Your task to perform on an android device: show emergency info Image 0: 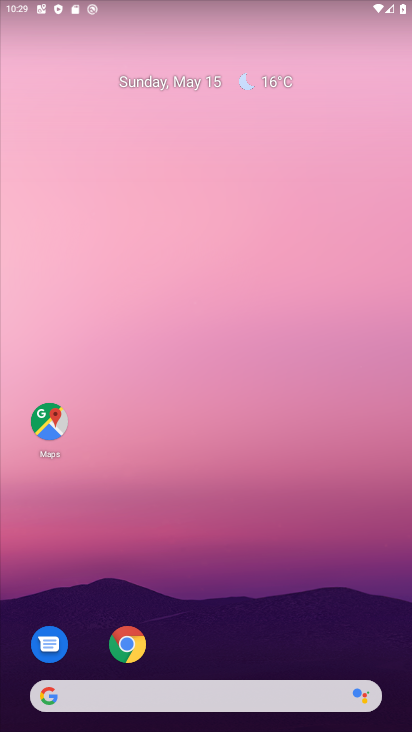
Step 0: drag from (271, 646) to (285, 44)
Your task to perform on an android device: show emergency info Image 1: 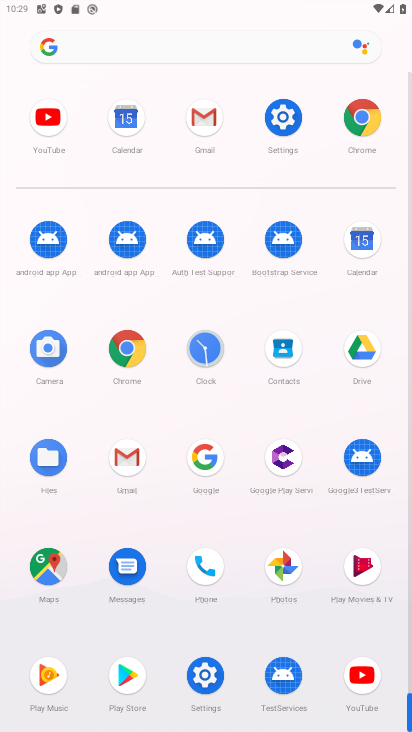
Step 1: click (290, 120)
Your task to perform on an android device: show emergency info Image 2: 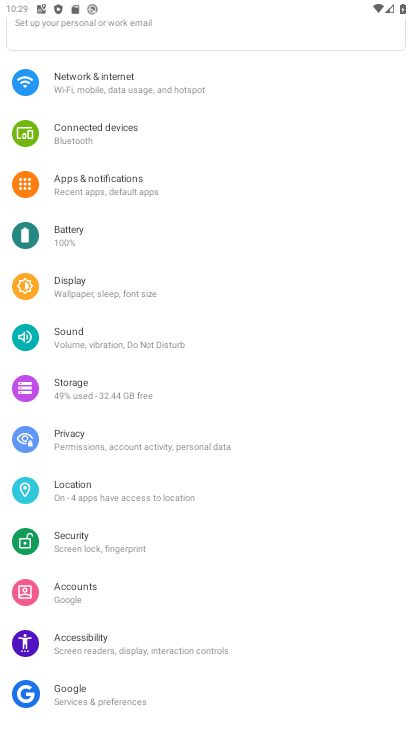
Step 2: drag from (295, 688) to (247, 172)
Your task to perform on an android device: show emergency info Image 3: 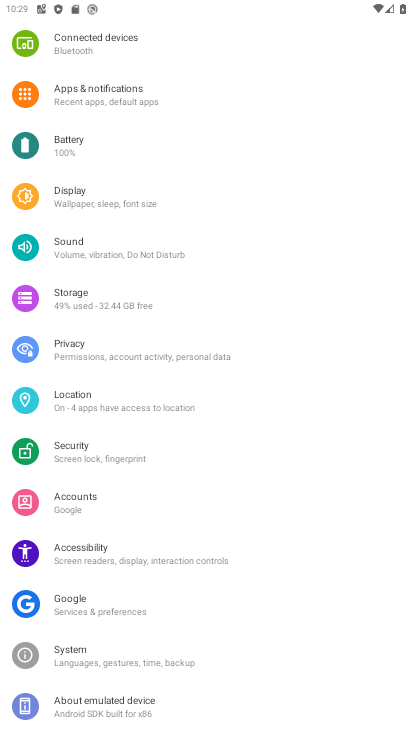
Step 3: click (168, 709)
Your task to perform on an android device: show emergency info Image 4: 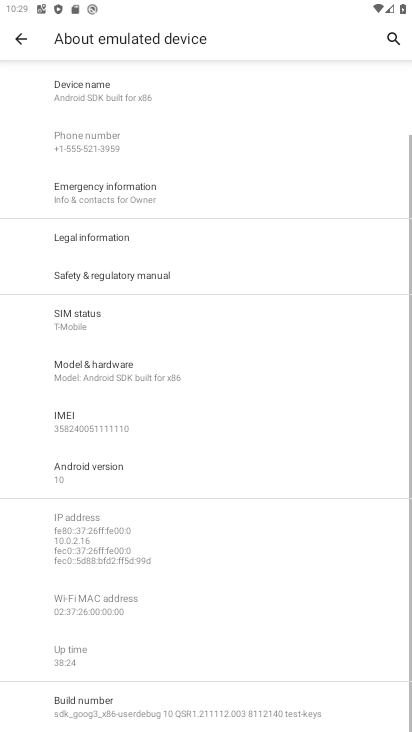
Step 4: click (146, 188)
Your task to perform on an android device: show emergency info Image 5: 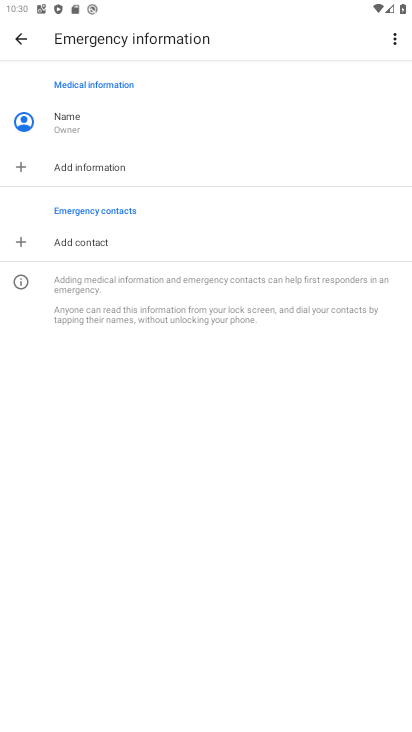
Step 5: task complete